Your task to perform on an android device: toggle location history Image 0: 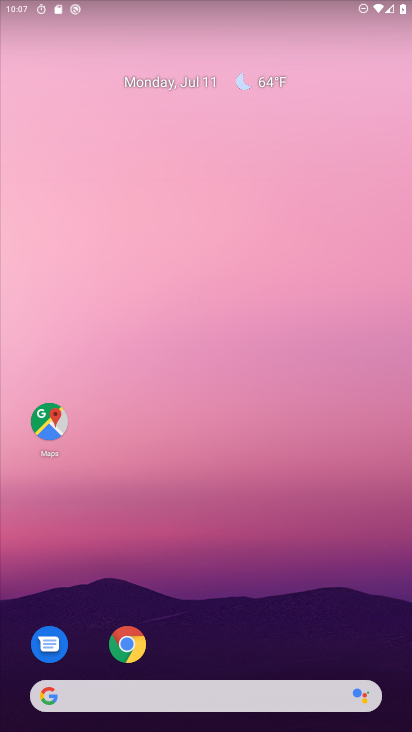
Step 0: drag from (307, 631) to (244, 110)
Your task to perform on an android device: toggle location history Image 1: 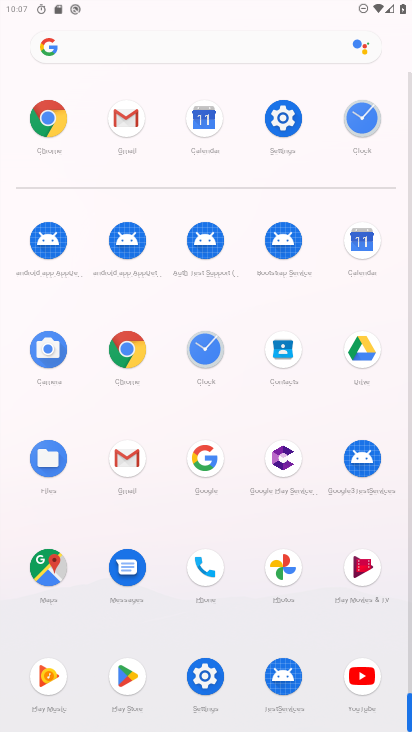
Step 1: click (298, 119)
Your task to perform on an android device: toggle location history Image 2: 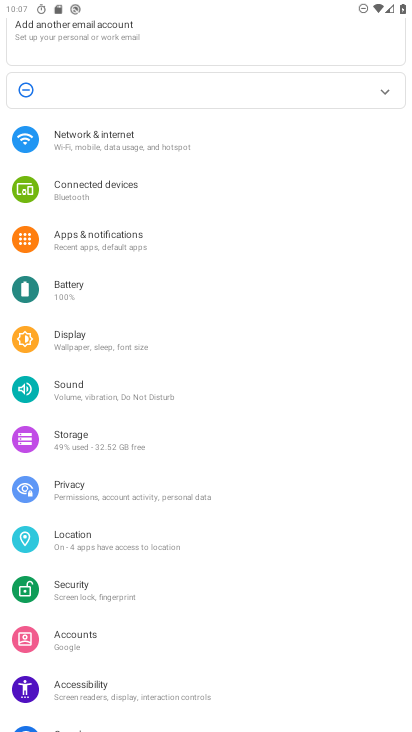
Step 2: click (104, 533)
Your task to perform on an android device: toggle location history Image 3: 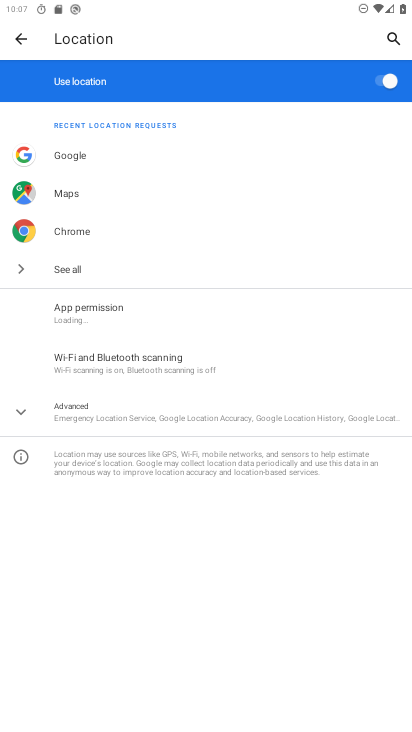
Step 3: click (100, 408)
Your task to perform on an android device: toggle location history Image 4: 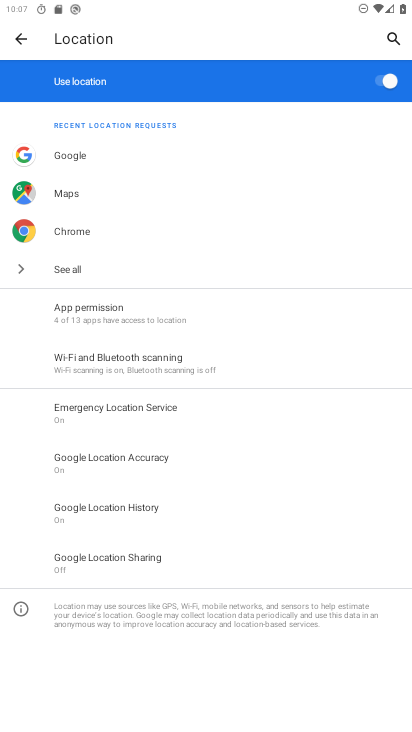
Step 4: click (160, 514)
Your task to perform on an android device: toggle location history Image 5: 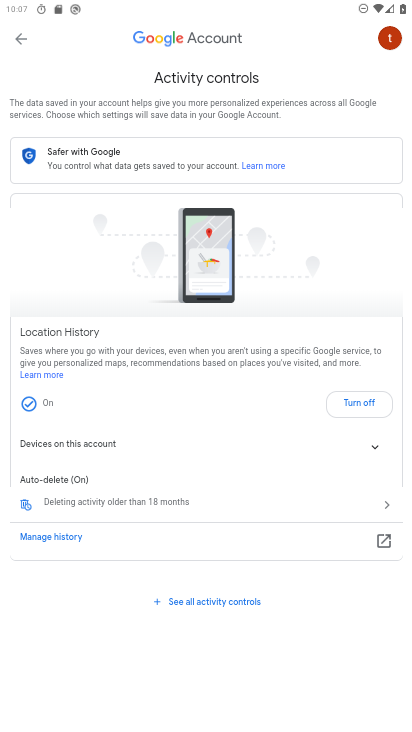
Step 5: click (362, 397)
Your task to perform on an android device: toggle location history Image 6: 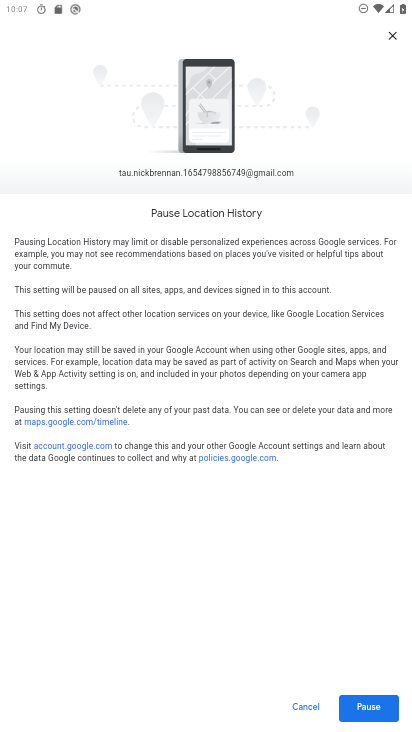
Step 6: click (372, 700)
Your task to perform on an android device: toggle location history Image 7: 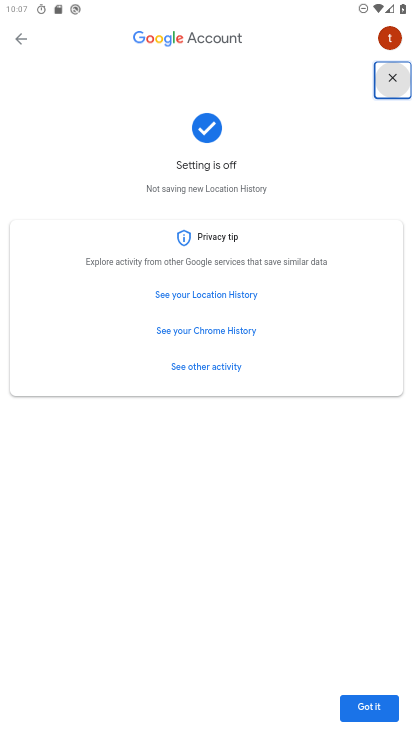
Step 7: task complete